Your task to perform on an android device: Show me recent news Image 0: 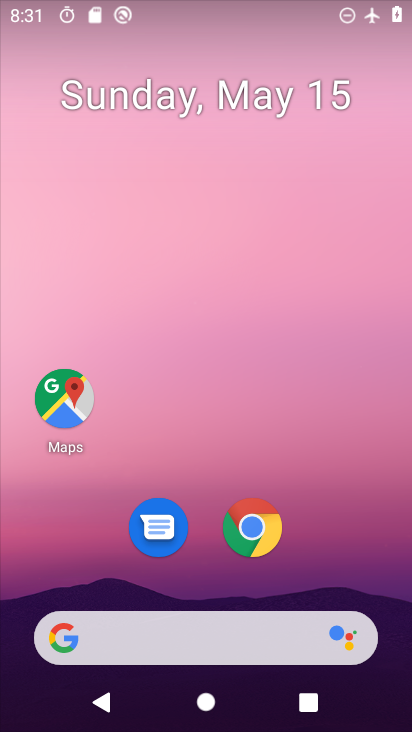
Step 0: drag from (214, 567) to (198, 189)
Your task to perform on an android device: Show me recent news Image 1: 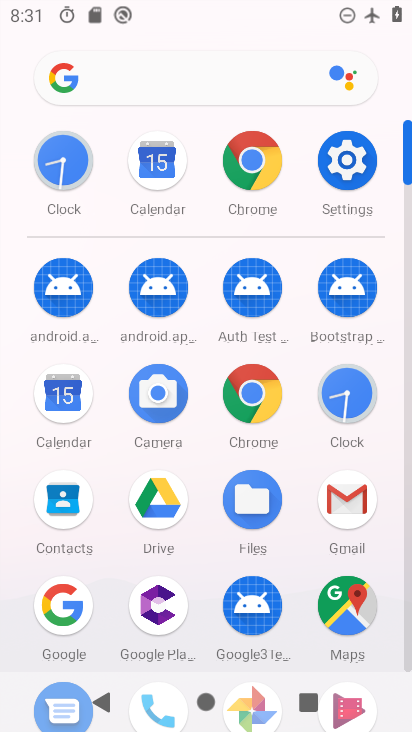
Step 1: click (65, 613)
Your task to perform on an android device: Show me recent news Image 2: 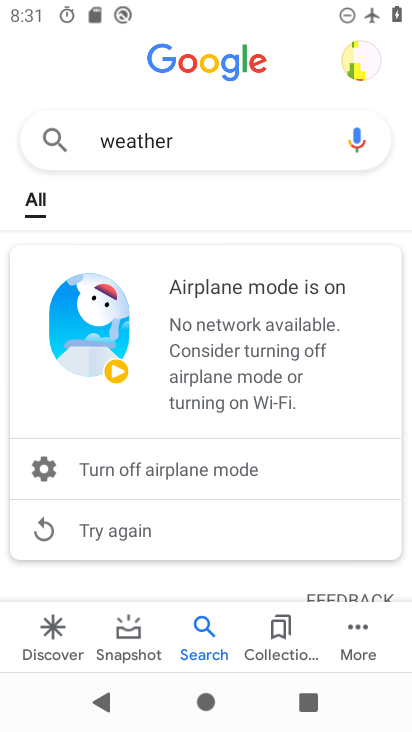
Step 2: click (227, 143)
Your task to perform on an android device: Show me recent news Image 3: 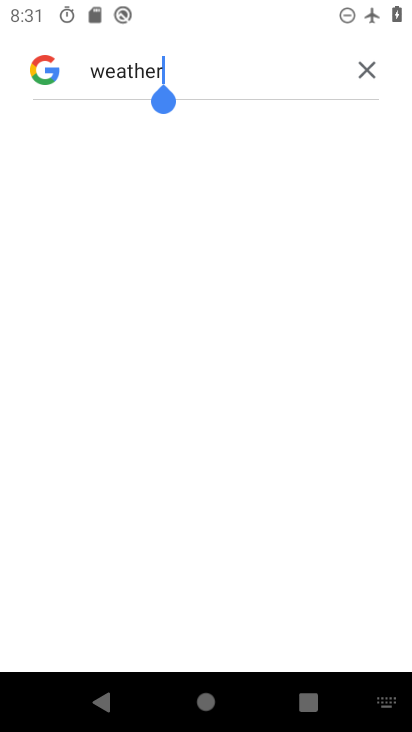
Step 3: click (368, 68)
Your task to perform on an android device: Show me recent news Image 4: 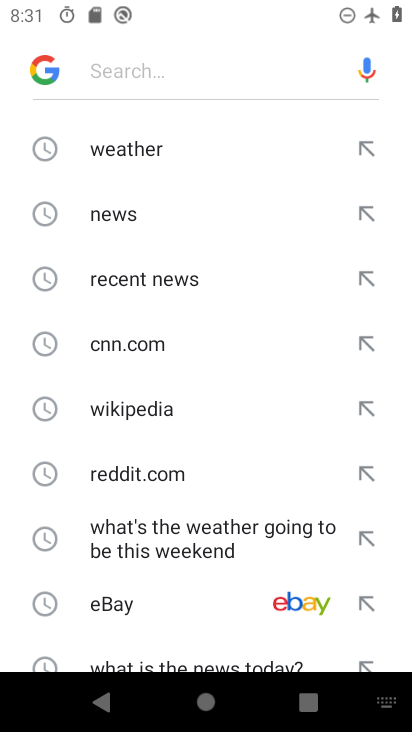
Step 4: click (127, 272)
Your task to perform on an android device: Show me recent news Image 5: 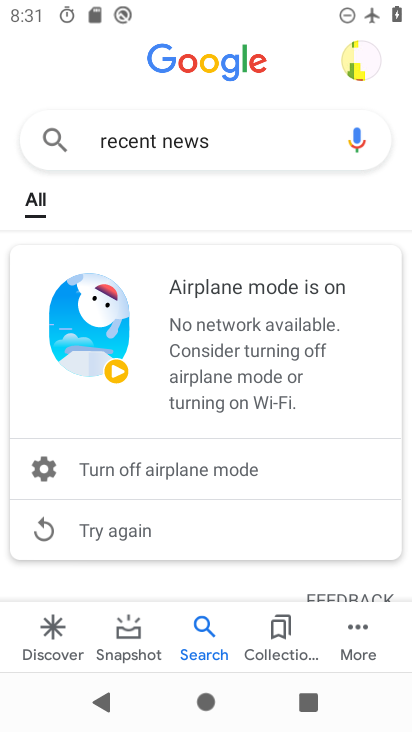
Step 5: task complete